Your task to perform on an android device: What's on my calendar today? Image 0: 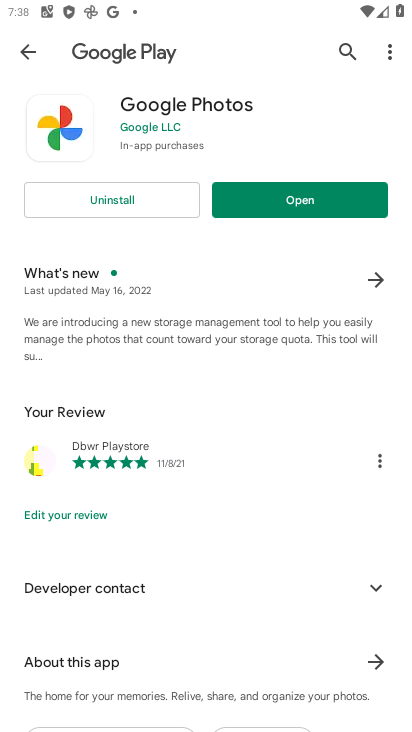
Step 0: press home button
Your task to perform on an android device: What's on my calendar today? Image 1: 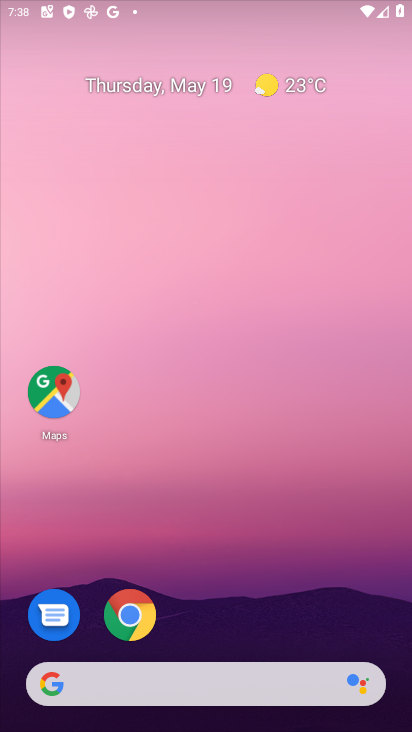
Step 1: drag from (370, 589) to (266, 37)
Your task to perform on an android device: What's on my calendar today? Image 2: 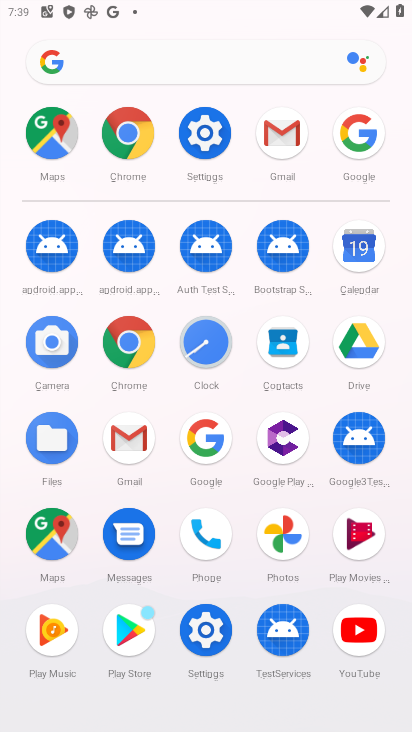
Step 2: click (362, 244)
Your task to perform on an android device: What's on my calendar today? Image 3: 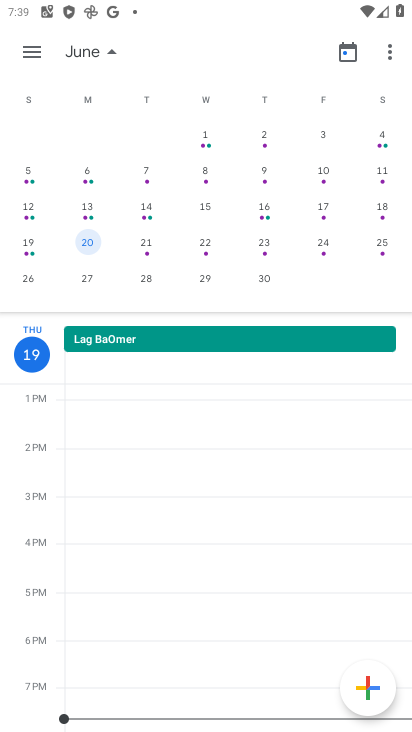
Step 3: drag from (93, 198) to (319, 169)
Your task to perform on an android device: What's on my calendar today? Image 4: 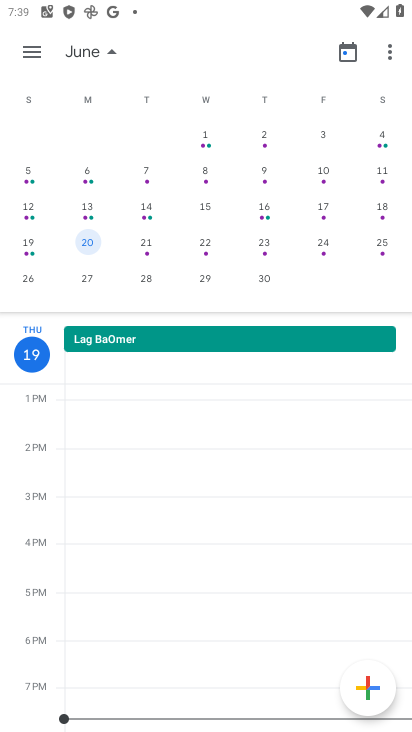
Step 4: drag from (34, 194) to (347, 183)
Your task to perform on an android device: What's on my calendar today? Image 5: 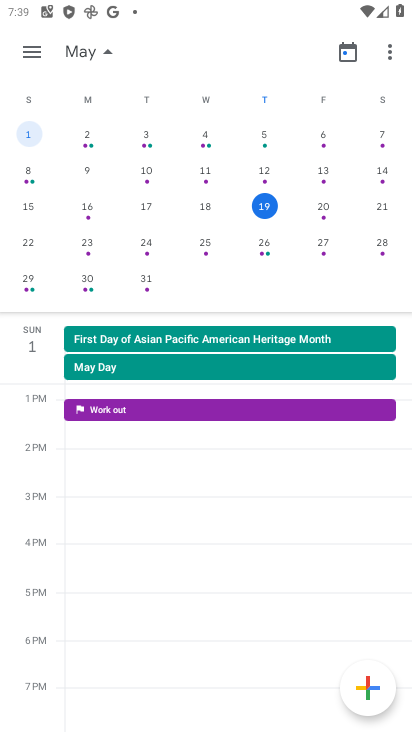
Step 5: click (326, 204)
Your task to perform on an android device: What's on my calendar today? Image 6: 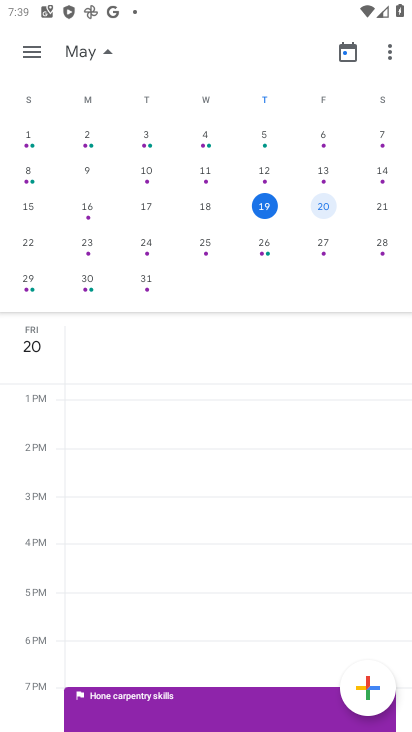
Step 6: click (143, 690)
Your task to perform on an android device: What's on my calendar today? Image 7: 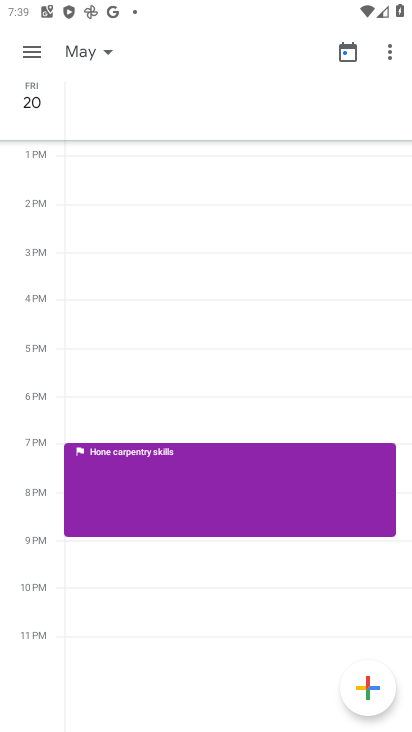
Step 7: click (152, 478)
Your task to perform on an android device: What's on my calendar today? Image 8: 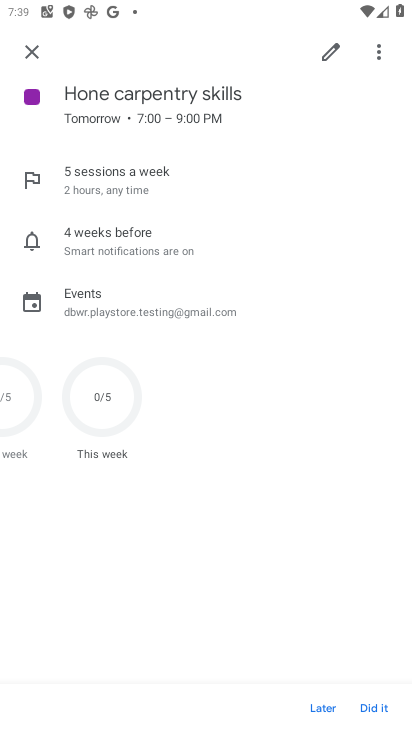
Step 8: task complete